Your task to perform on an android device: turn on javascript in the chrome app Image 0: 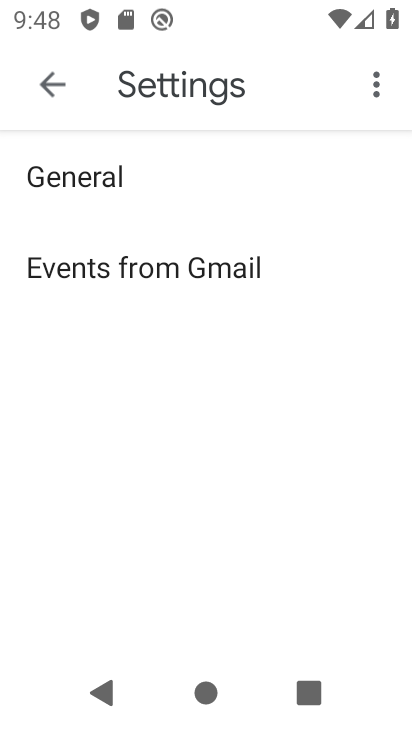
Step 0: press home button
Your task to perform on an android device: turn on javascript in the chrome app Image 1: 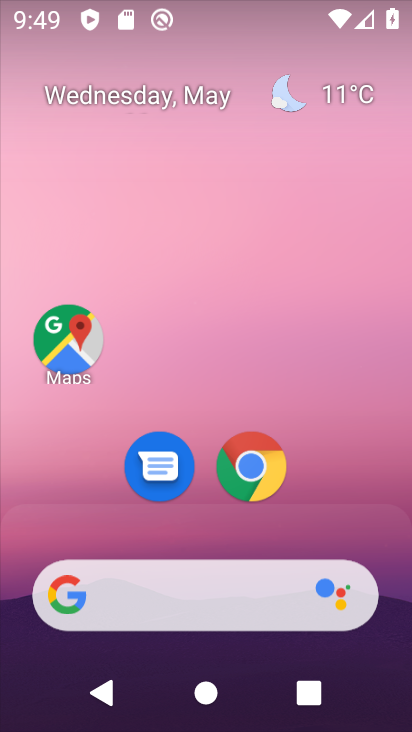
Step 1: drag from (324, 508) to (241, 24)
Your task to perform on an android device: turn on javascript in the chrome app Image 2: 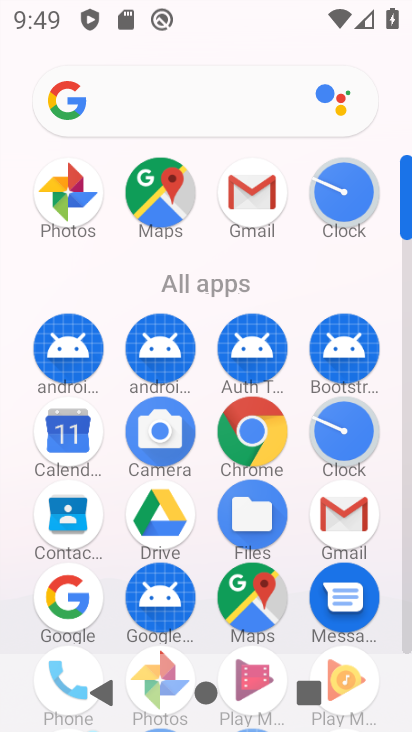
Step 2: drag from (277, 607) to (277, 349)
Your task to perform on an android device: turn on javascript in the chrome app Image 3: 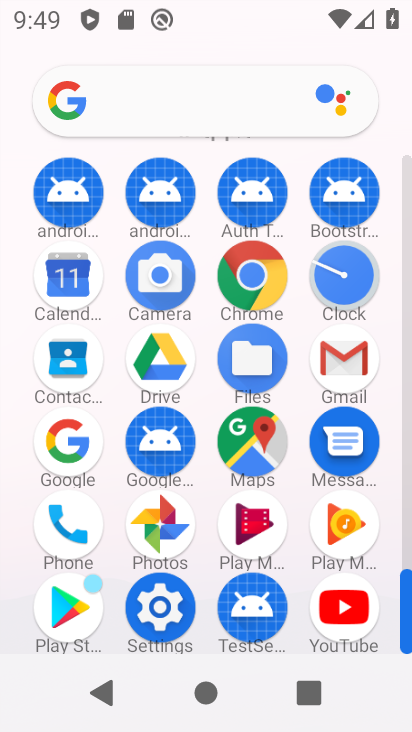
Step 3: click (248, 313)
Your task to perform on an android device: turn on javascript in the chrome app Image 4: 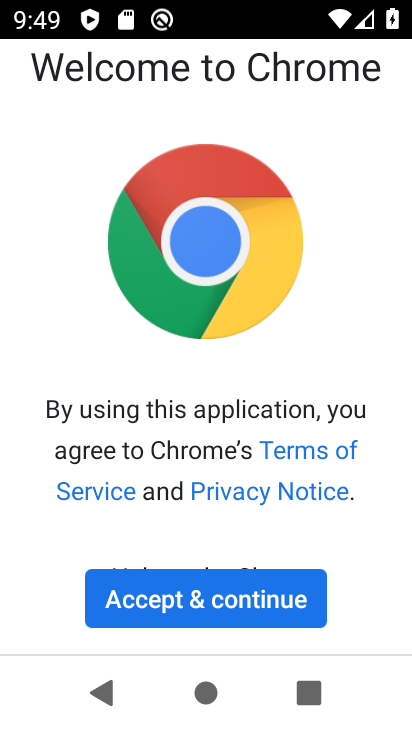
Step 4: click (217, 614)
Your task to perform on an android device: turn on javascript in the chrome app Image 5: 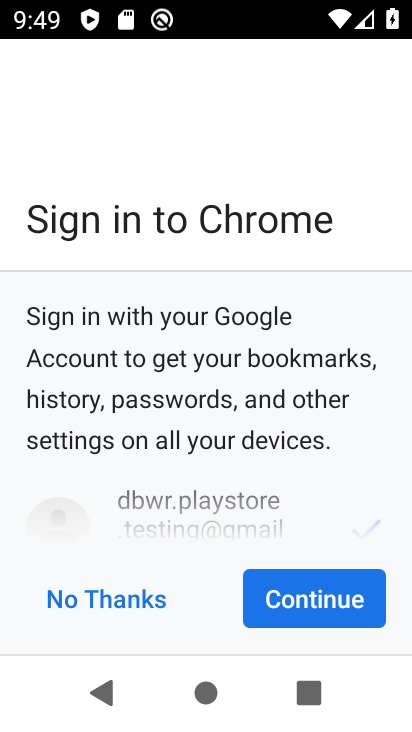
Step 5: click (360, 596)
Your task to perform on an android device: turn on javascript in the chrome app Image 6: 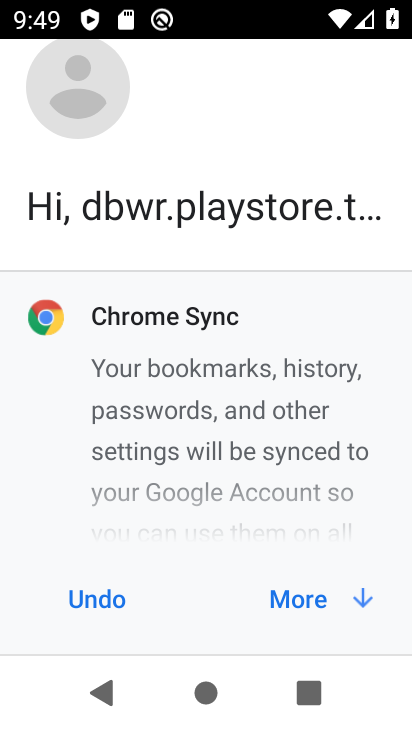
Step 6: click (297, 605)
Your task to perform on an android device: turn on javascript in the chrome app Image 7: 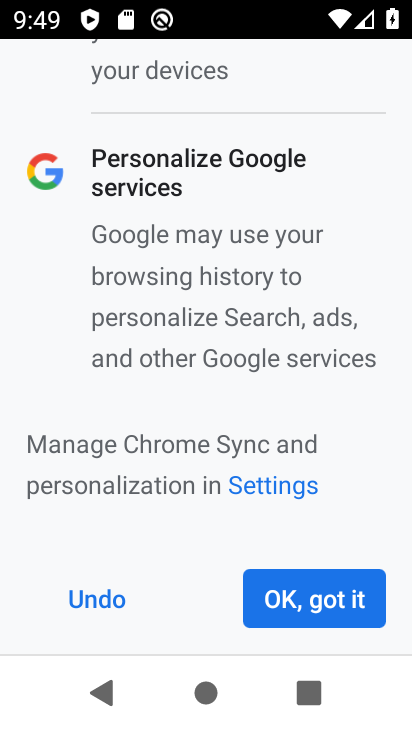
Step 7: click (306, 594)
Your task to perform on an android device: turn on javascript in the chrome app Image 8: 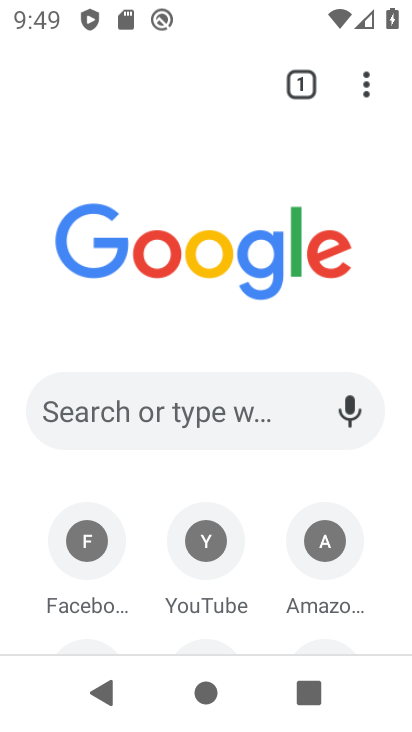
Step 8: click (374, 89)
Your task to perform on an android device: turn on javascript in the chrome app Image 9: 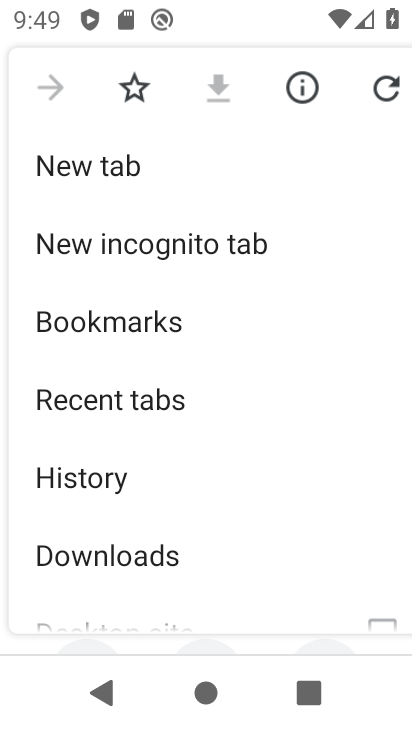
Step 9: drag from (135, 558) to (125, 272)
Your task to perform on an android device: turn on javascript in the chrome app Image 10: 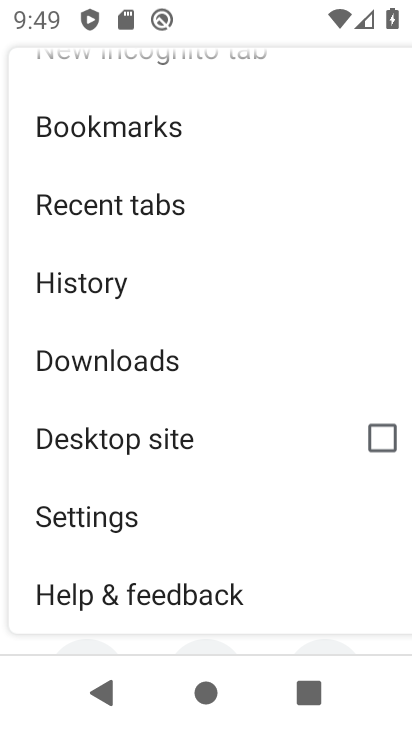
Step 10: click (104, 519)
Your task to perform on an android device: turn on javascript in the chrome app Image 11: 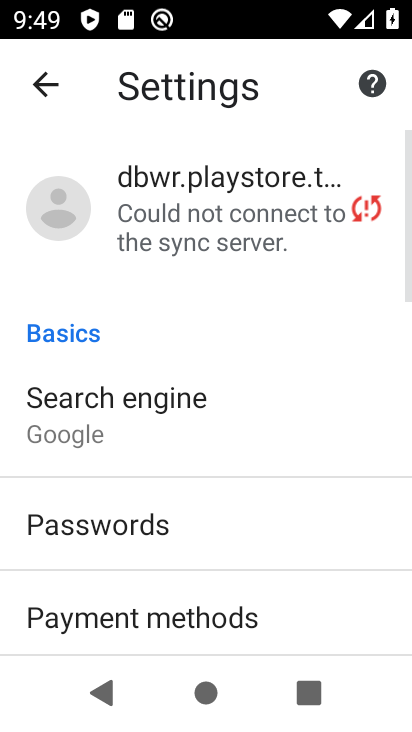
Step 11: drag from (163, 593) to (230, 217)
Your task to perform on an android device: turn on javascript in the chrome app Image 12: 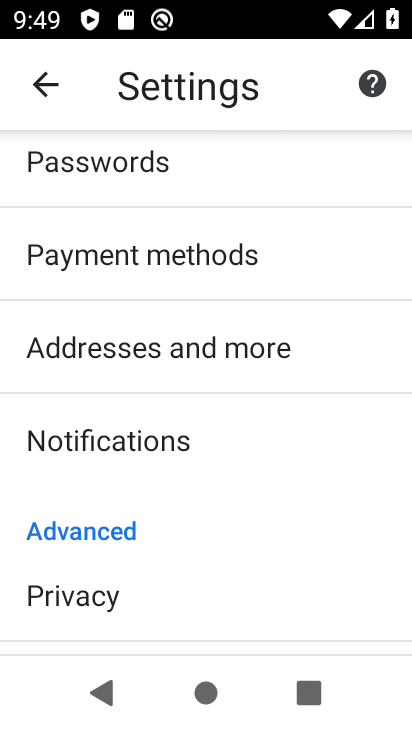
Step 12: drag from (215, 619) to (213, 180)
Your task to perform on an android device: turn on javascript in the chrome app Image 13: 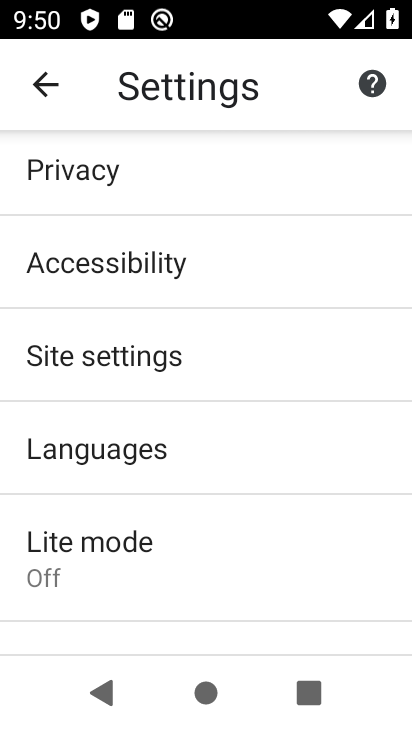
Step 13: click (130, 357)
Your task to perform on an android device: turn on javascript in the chrome app Image 14: 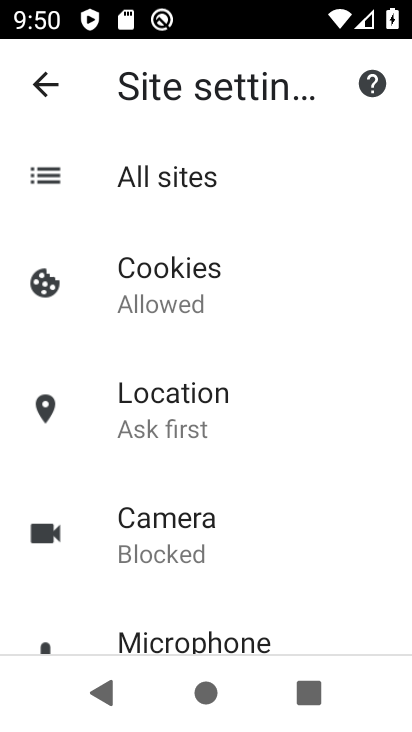
Step 14: drag from (216, 542) to (205, 380)
Your task to perform on an android device: turn on javascript in the chrome app Image 15: 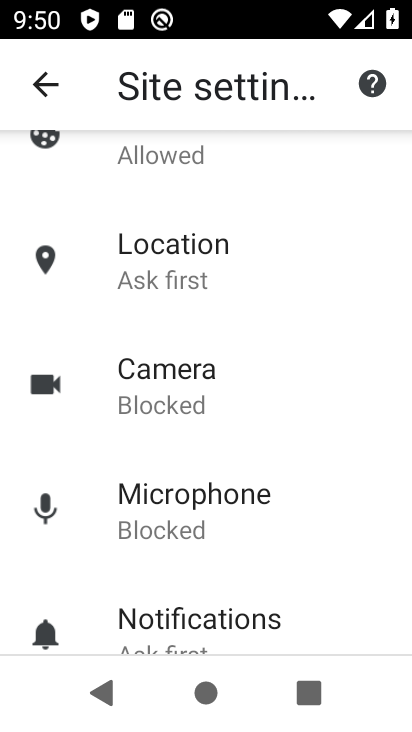
Step 15: drag from (228, 618) to (267, 408)
Your task to perform on an android device: turn on javascript in the chrome app Image 16: 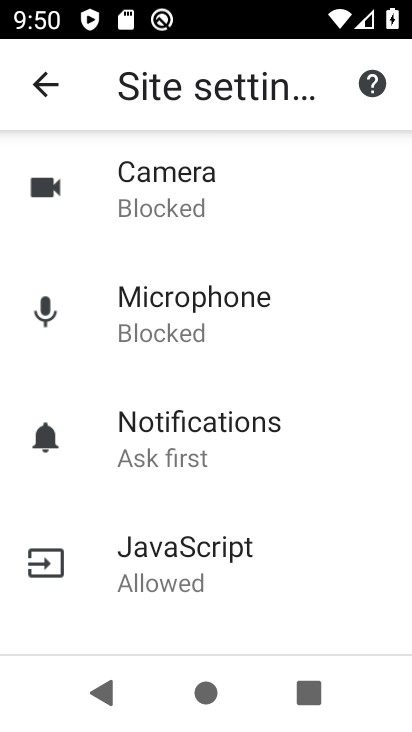
Step 16: click (217, 564)
Your task to perform on an android device: turn on javascript in the chrome app Image 17: 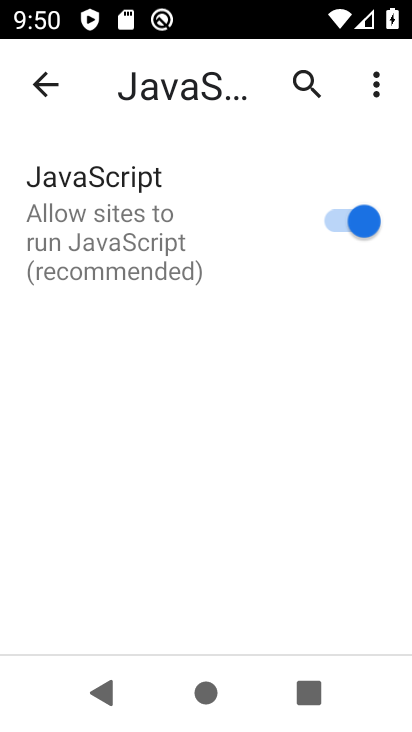
Step 17: task complete